Your task to perform on an android device: toggle translation in the chrome app Image 0: 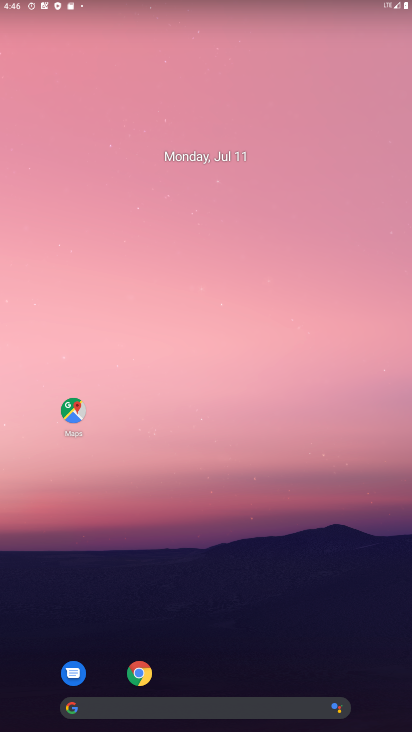
Step 0: click (140, 672)
Your task to perform on an android device: toggle translation in the chrome app Image 1: 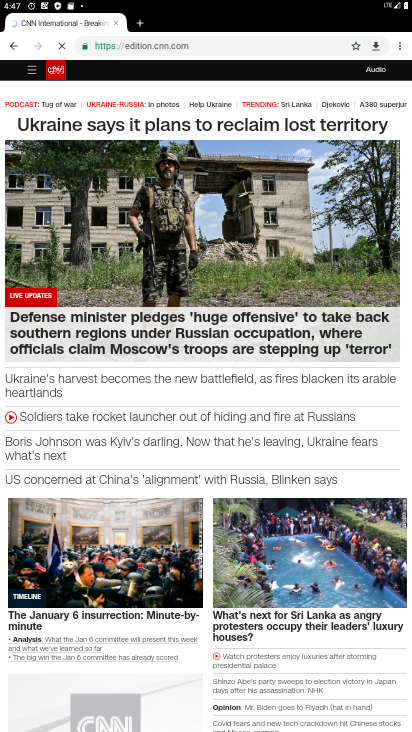
Step 1: click (399, 45)
Your task to perform on an android device: toggle translation in the chrome app Image 2: 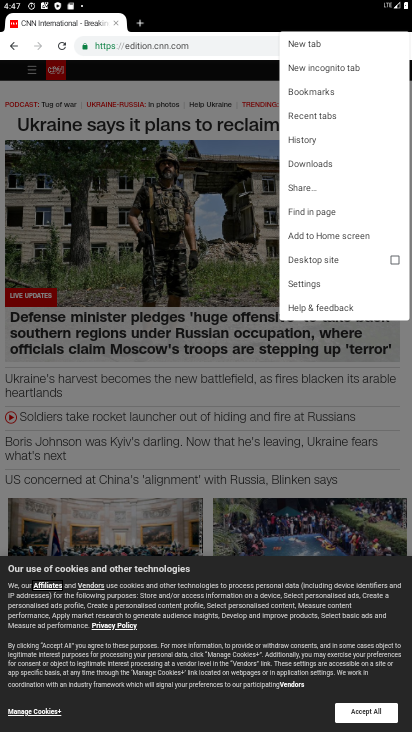
Step 2: click (308, 283)
Your task to perform on an android device: toggle translation in the chrome app Image 3: 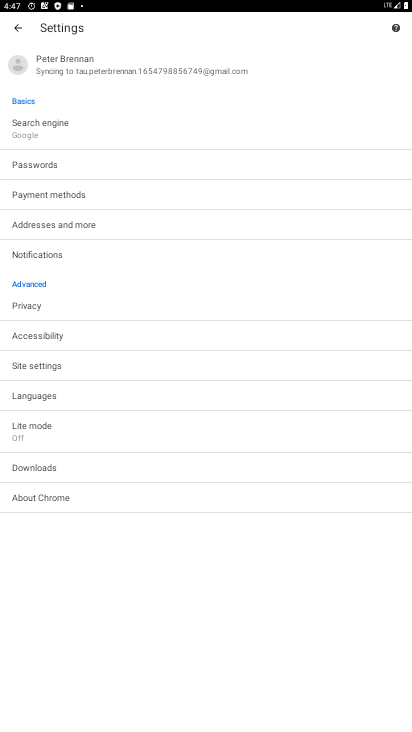
Step 3: click (49, 398)
Your task to perform on an android device: toggle translation in the chrome app Image 4: 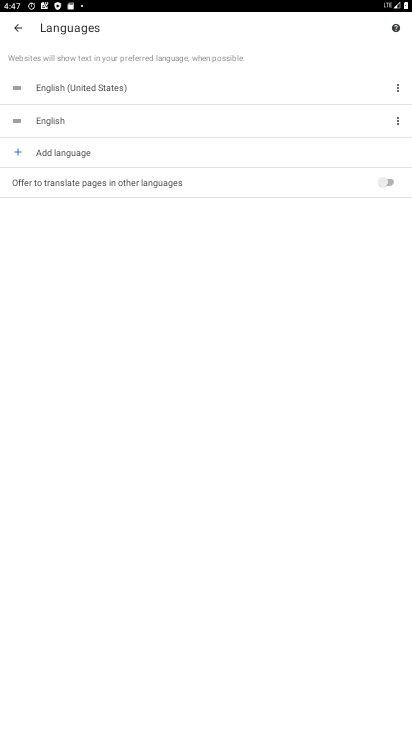
Step 4: click (387, 177)
Your task to perform on an android device: toggle translation in the chrome app Image 5: 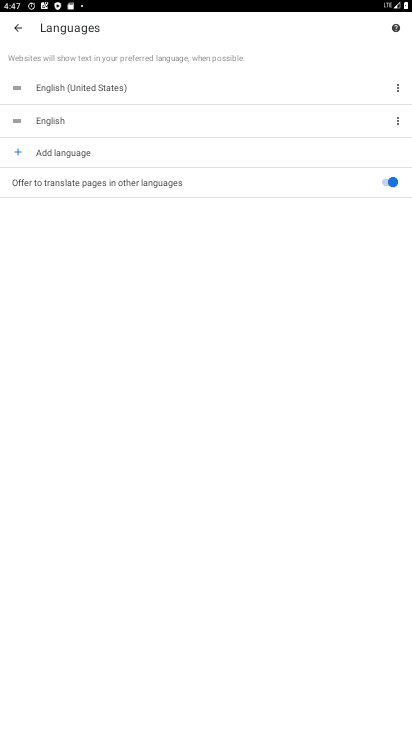
Step 5: task complete